Your task to perform on an android device: Open eBay Image 0: 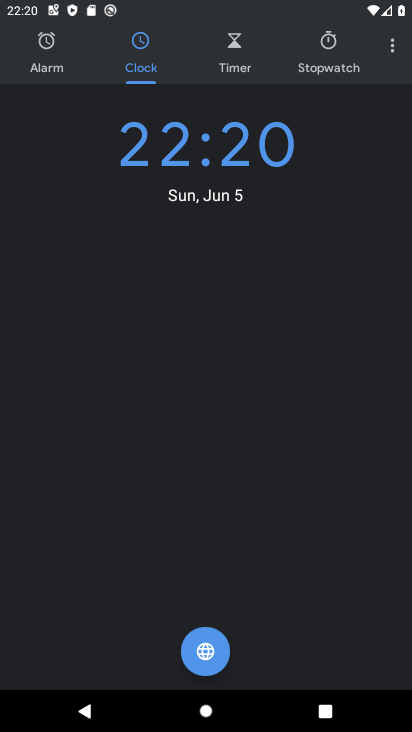
Step 0: press home button
Your task to perform on an android device: Open eBay Image 1: 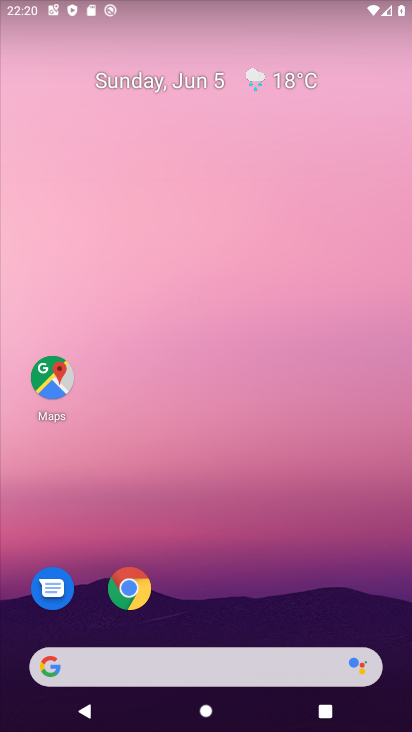
Step 1: drag from (363, 595) to (346, 121)
Your task to perform on an android device: Open eBay Image 2: 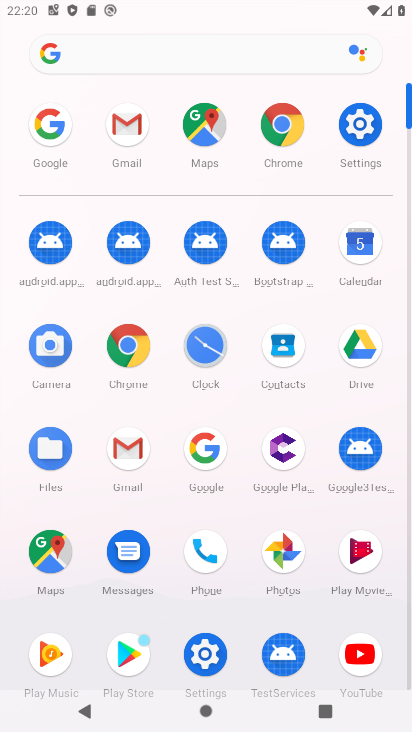
Step 2: click (130, 354)
Your task to perform on an android device: Open eBay Image 3: 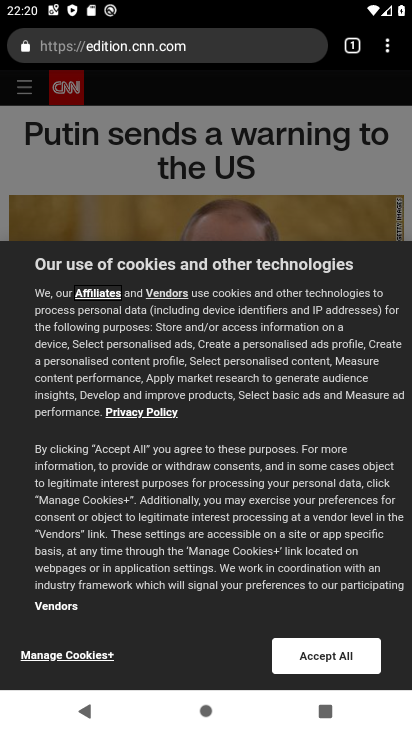
Step 3: click (250, 54)
Your task to perform on an android device: Open eBay Image 4: 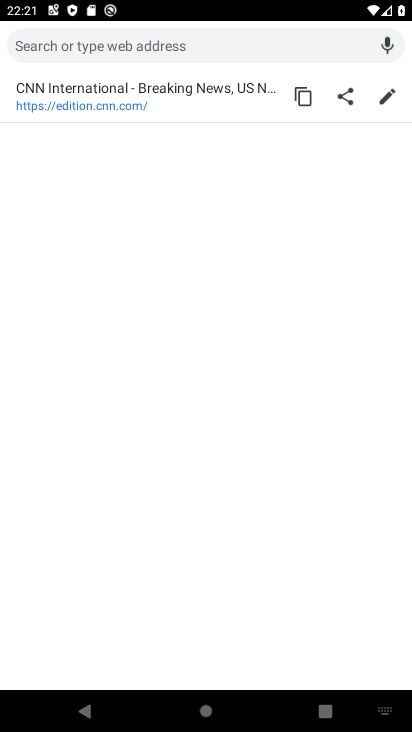
Step 4: type "ebay"
Your task to perform on an android device: Open eBay Image 5: 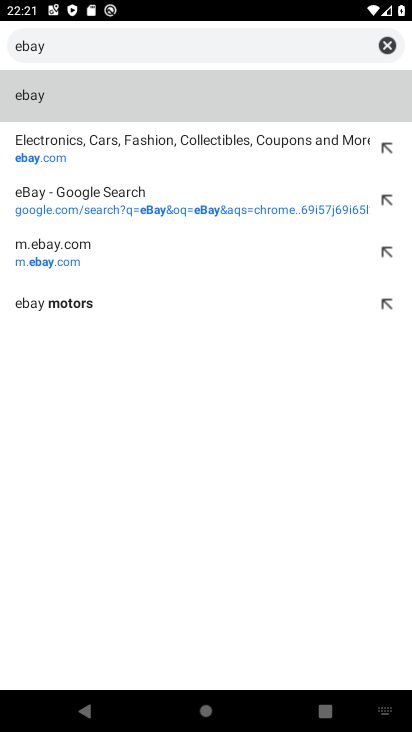
Step 5: click (103, 166)
Your task to perform on an android device: Open eBay Image 6: 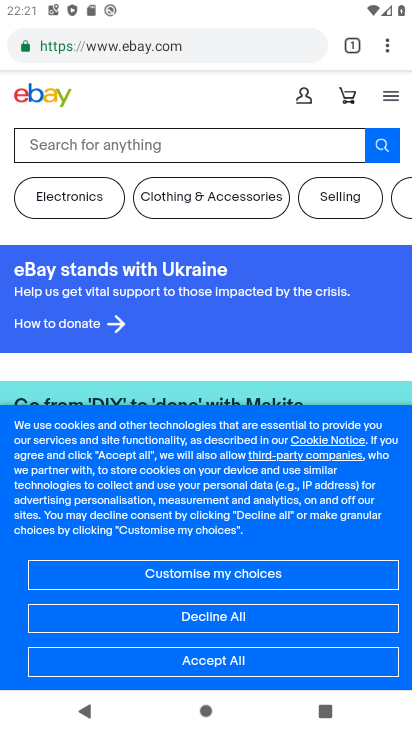
Step 6: task complete